Your task to perform on an android device: Open network settings Image 0: 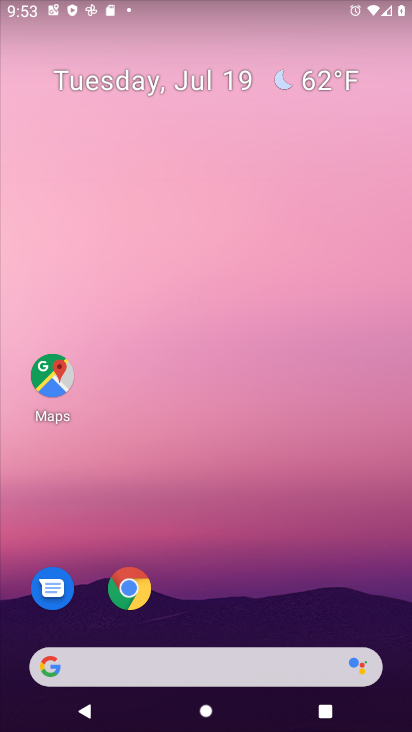
Step 0: drag from (307, 594) to (262, 159)
Your task to perform on an android device: Open network settings Image 1: 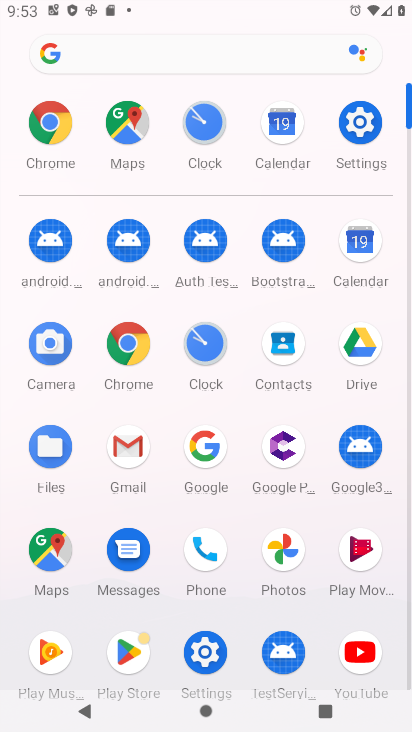
Step 1: click (348, 121)
Your task to perform on an android device: Open network settings Image 2: 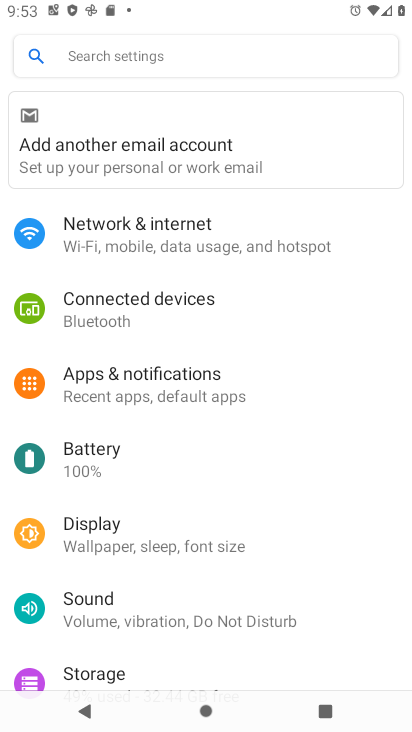
Step 2: click (171, 225)
Your task to perform on an android device: Open network settings Image 3: 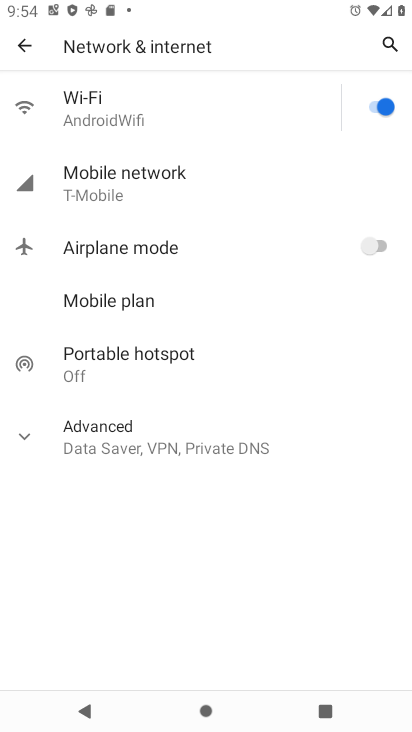
Step 3: task complete